Your task to perform on an android device: open wifi settings Image 0: 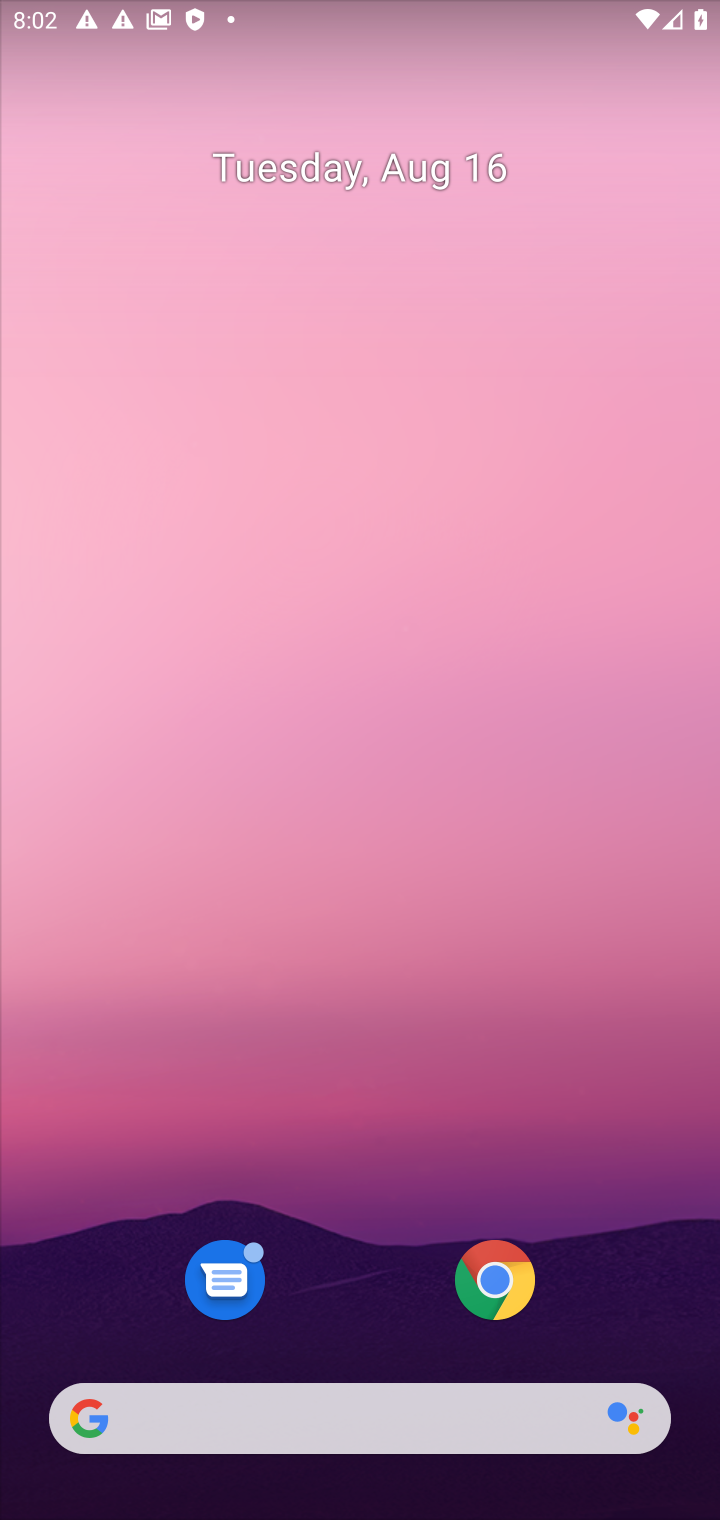
Step 0: drag from (307, 1087) to (342, 618)
Your task to perform on an android device: open wifi settings Image 1: 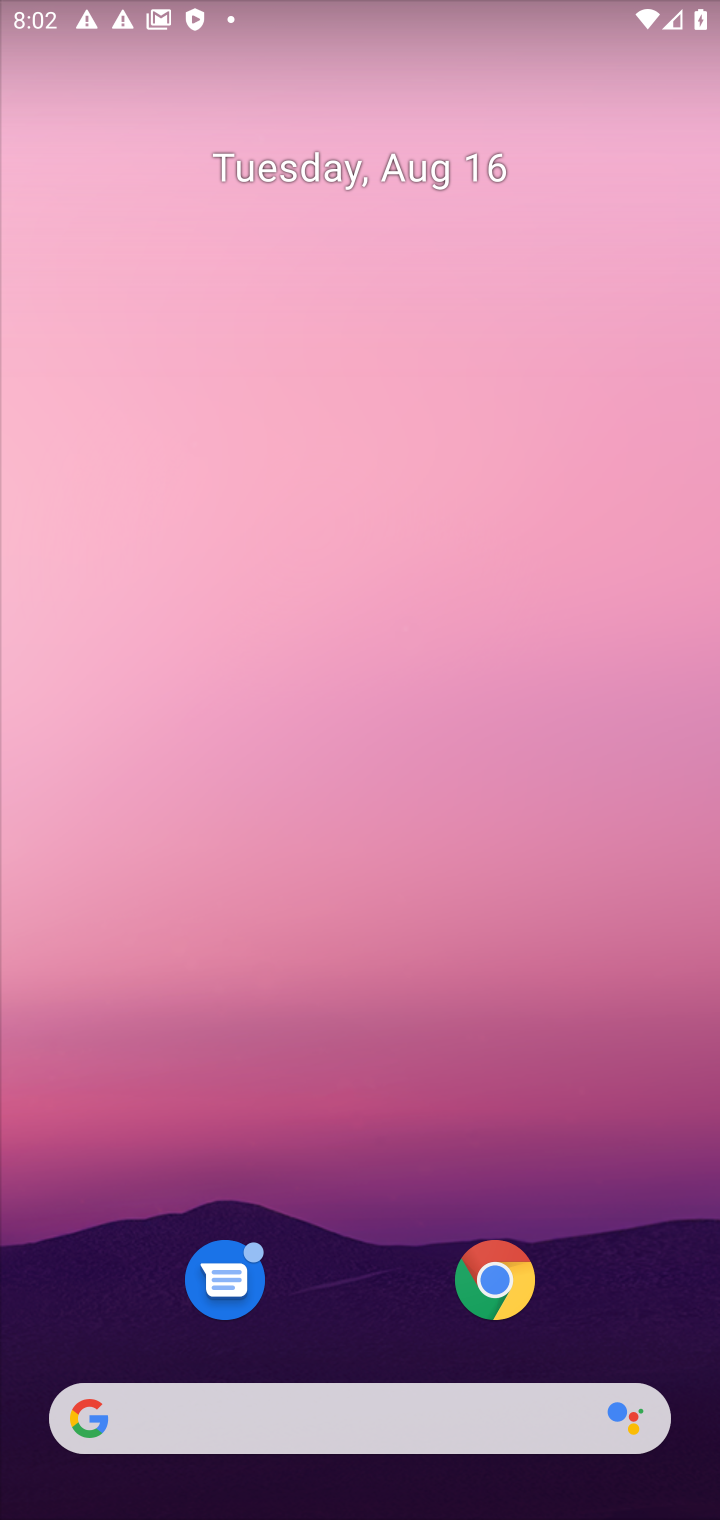
Step 1: drag from (320, 1307) to (370, 407)
Your task to perform on an android device: open wifi settings Image 2: 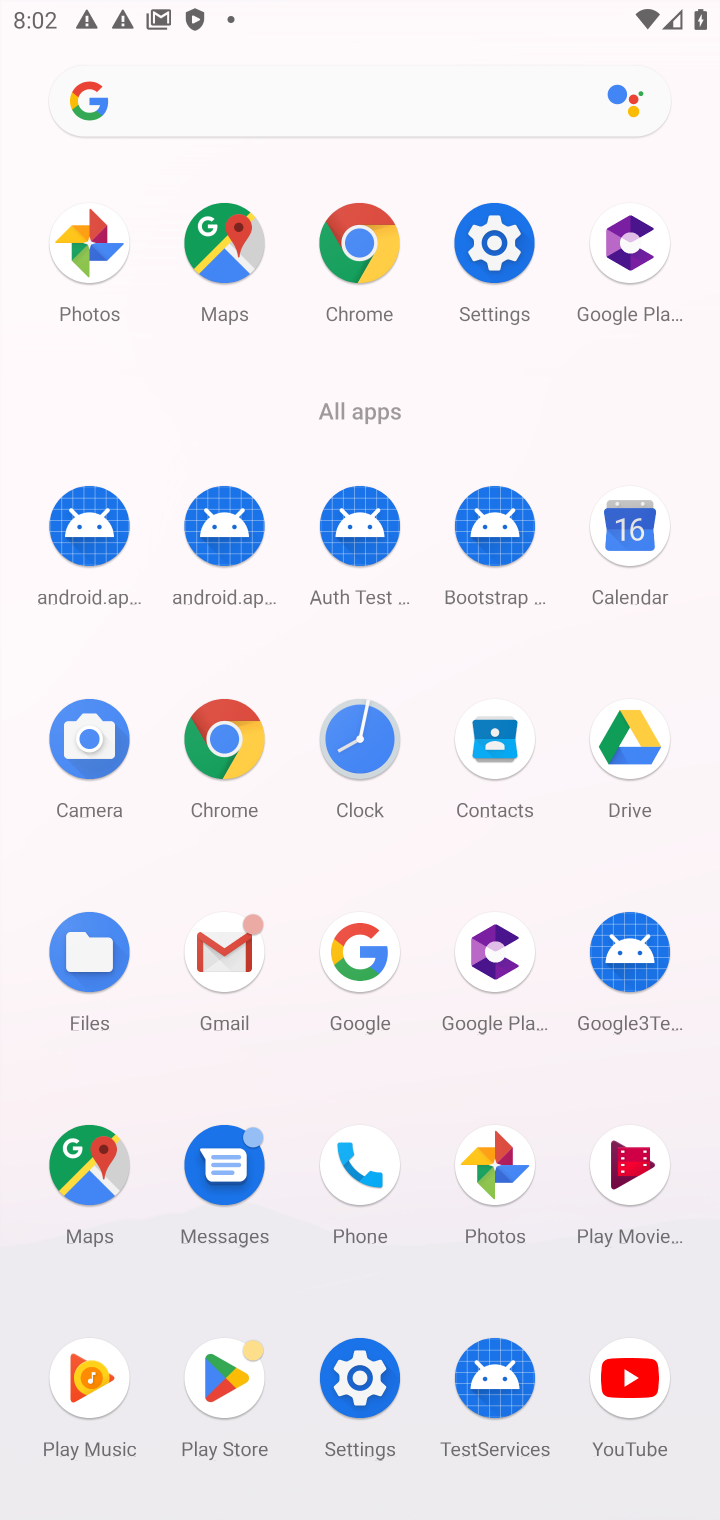
Step 2: click (499, 262)
Your task to perform on an android device: open wifi settings Image 3: 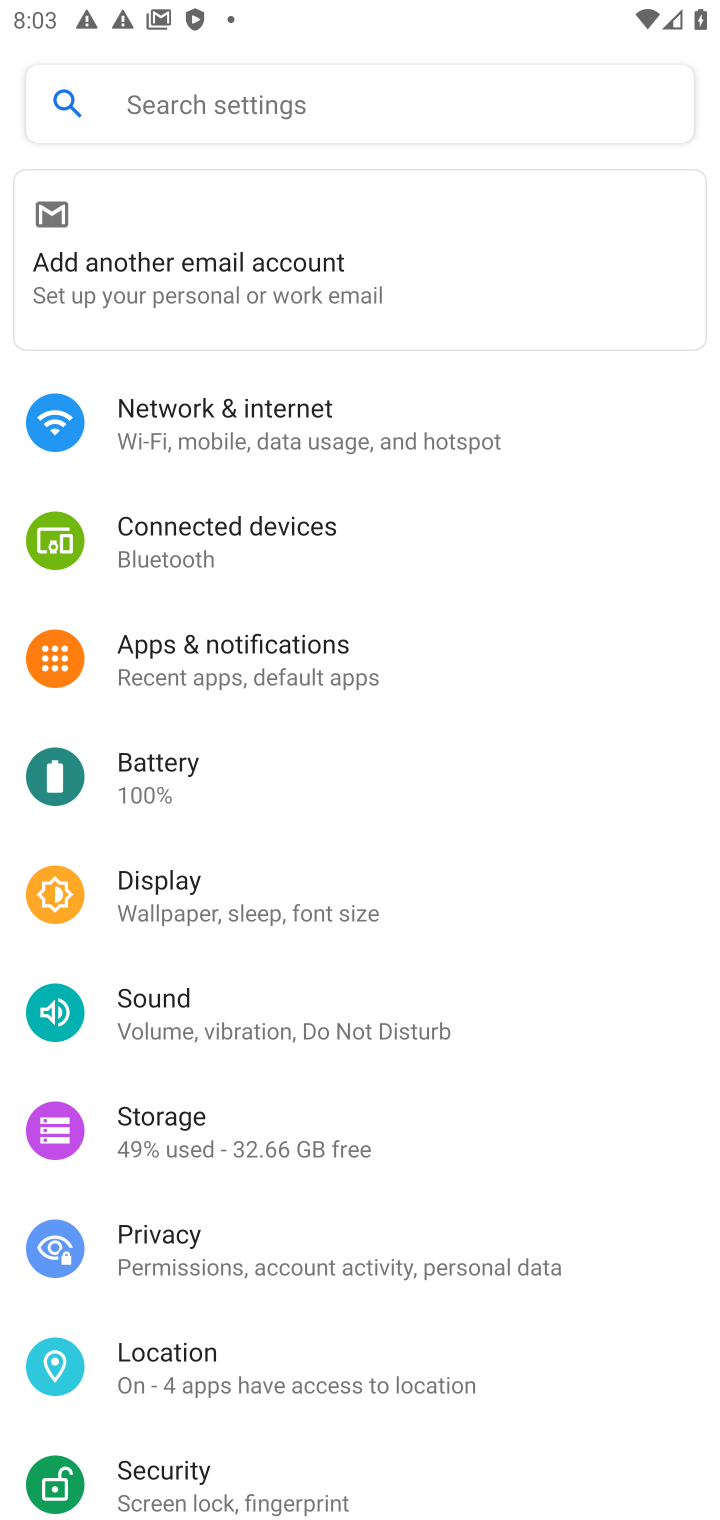
Step 3: click (227, 449)
Your task to perform on an android device: open wifi settings Image 4: 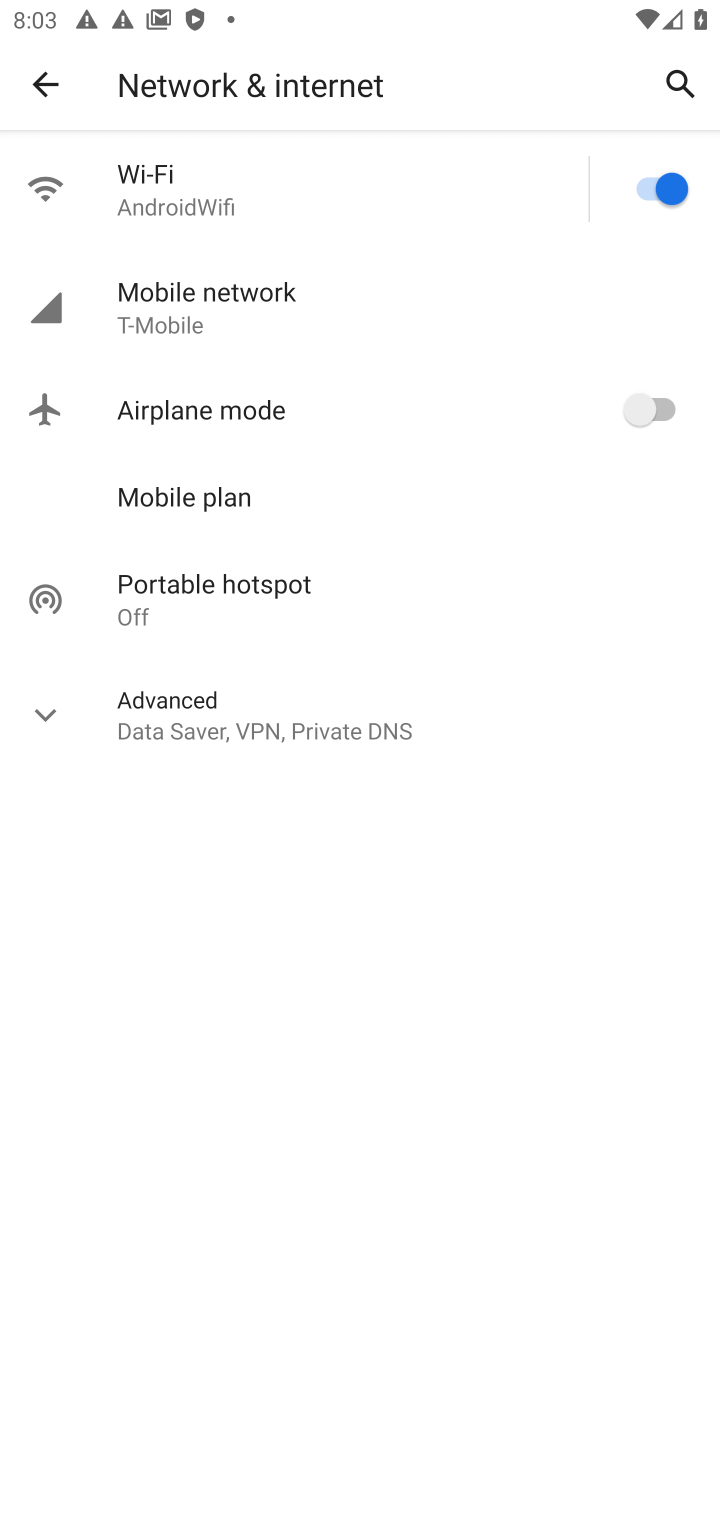
Step 4: click (137, 191)
Your task to perform on an android device: open wifi settings Image 5: 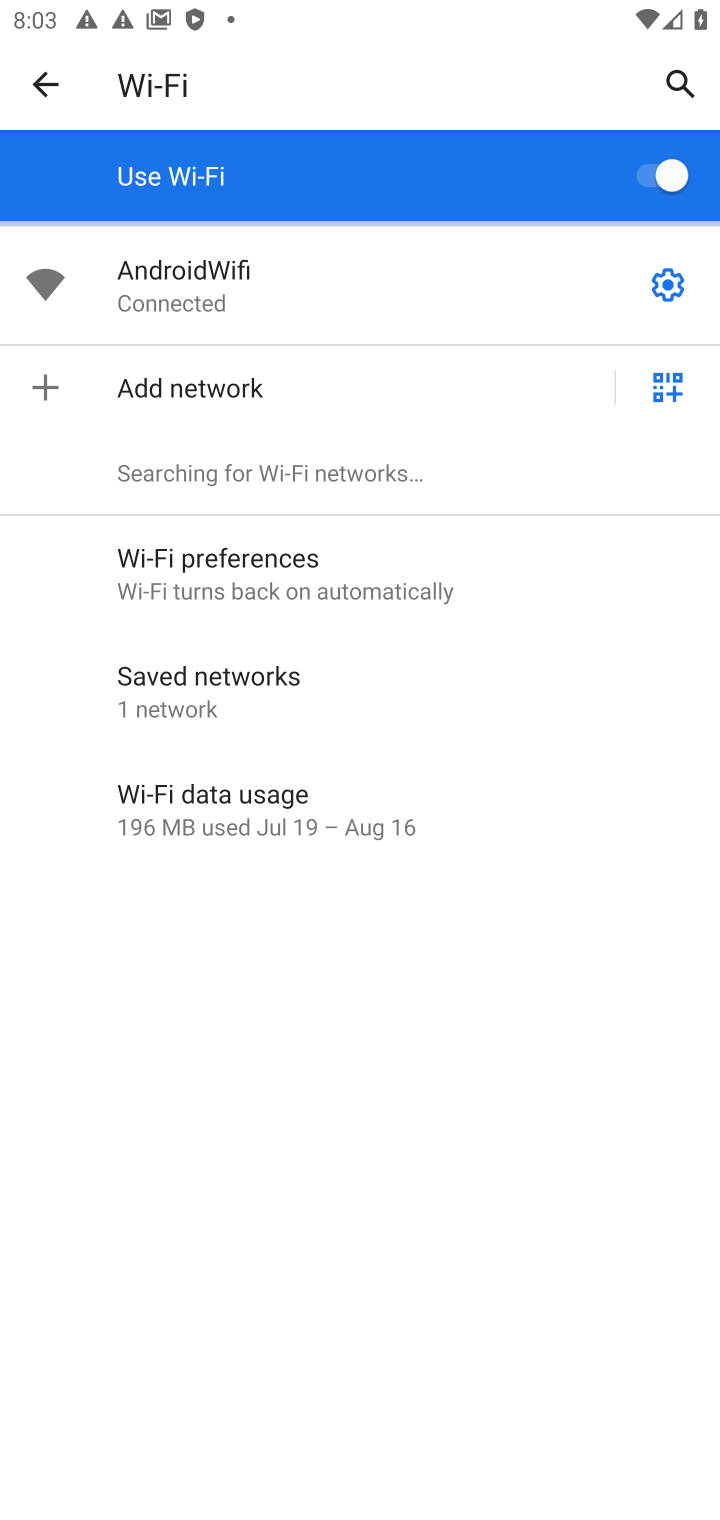
Step 5: task complete